Your task to perform on an android device: turn off data saver in the chrome app Image 0: 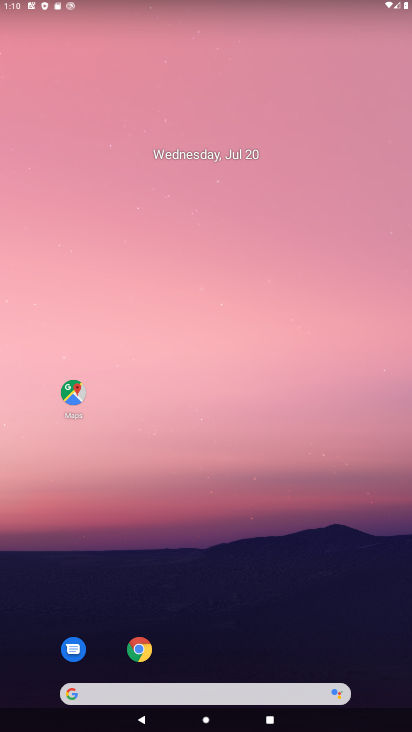
Step 0: press home button
Your task to perform on an android device: turn off data saver in the chrome app Image 1: 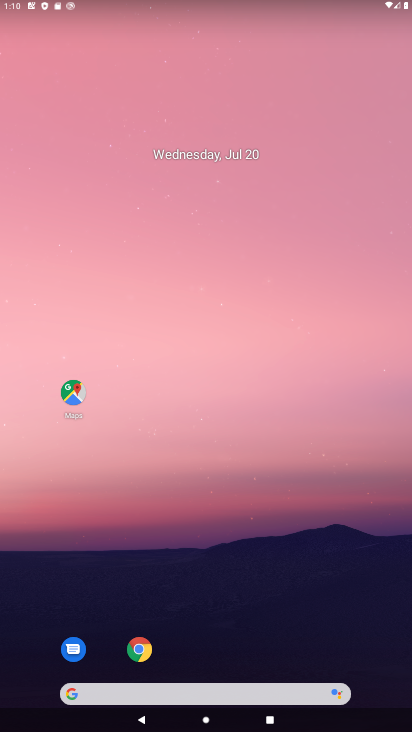
Step 1: drag from (284, 662) to (328, 29)
Your task to perform on an android device: turn off data saver in the chrome app Image 2: 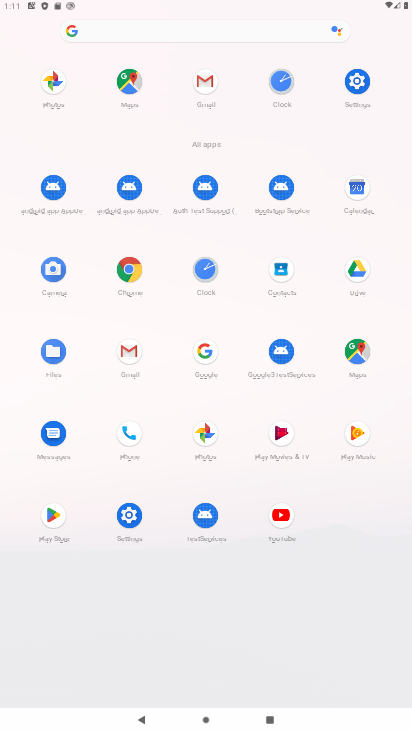
Step 2: click (116, 272)
Your task to perform on an android device: turn off data saver in the chrome app Image 3: 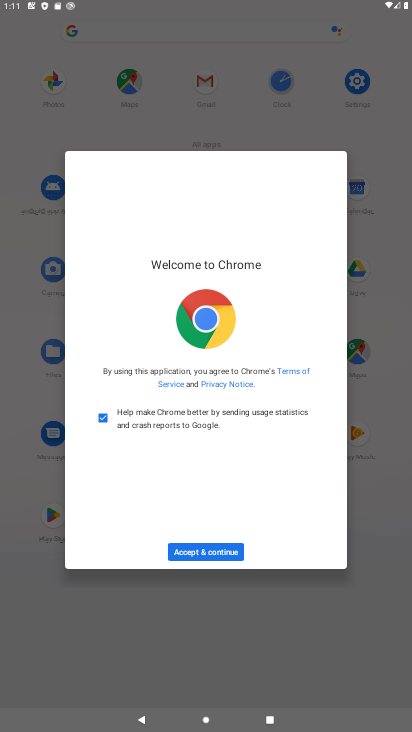
Step 3: click (217, 552)
Your task to perform on an android device: turn off data saver in the chrome app Image 4: 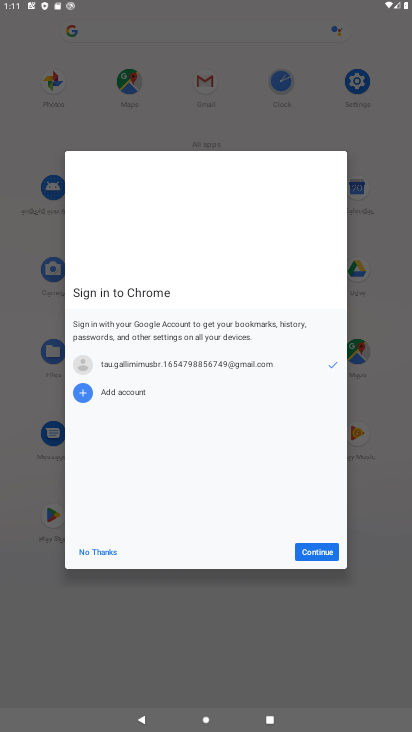
Step 4: click (312, 553)
Your task to perform on an android device: turn off data saver in the chrome app Image 5: 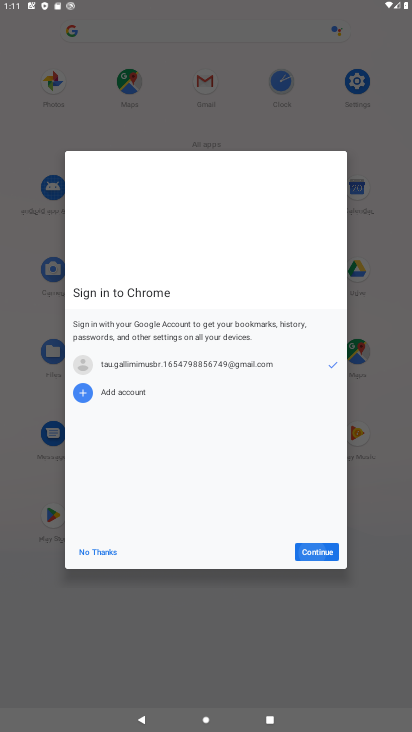
Step 5: click (312, 553)
Your task to perform on an android device: turn off data saver in the chrome app Image 6: 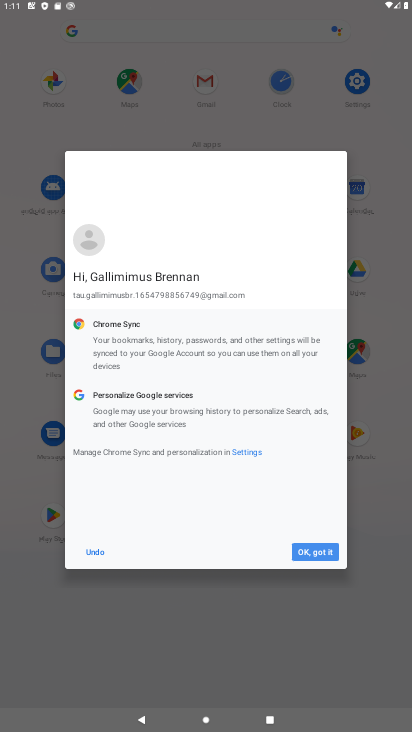
Step 6: click (312, 553)
Your task to perform on an android device: turn off data saver in the chrome app Image 7: 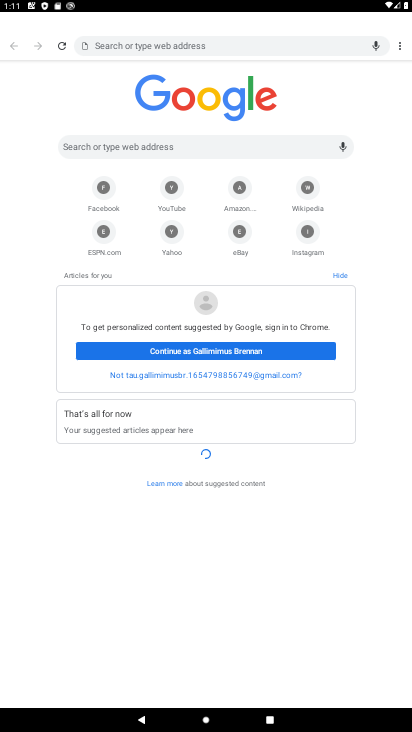
Step 7: drag from (400, 48) to (296, 208)
Your task to perform on an android device: turn off data saver in the chrome app Image 8: 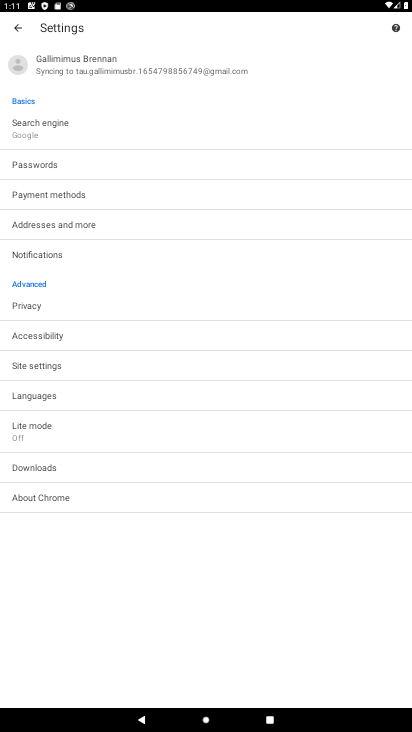
Step 8: click (42, 425)
Your task to perform on an android device: turn off data saver in the chrome app Image 9: 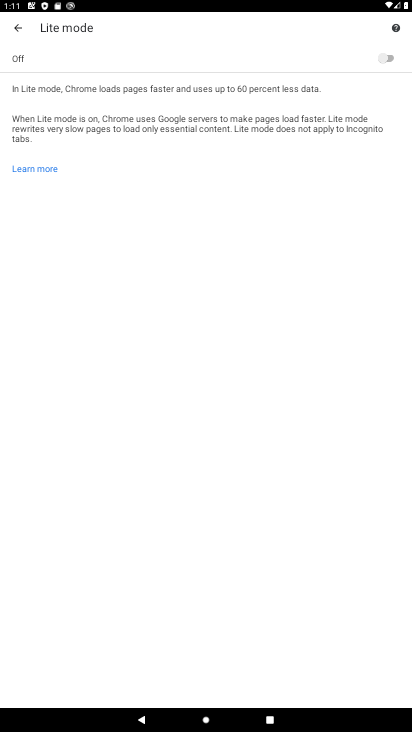
Step 9: task complete